Your task to perform on an android device: Open Chrome and go to the settings page Image 0: 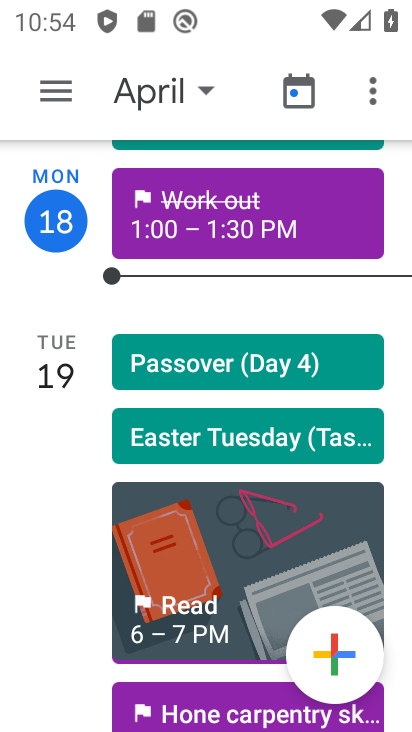
Step 0: press home button
Your task to perform on an android device: Open Chrome and go to the settings page Image 1: 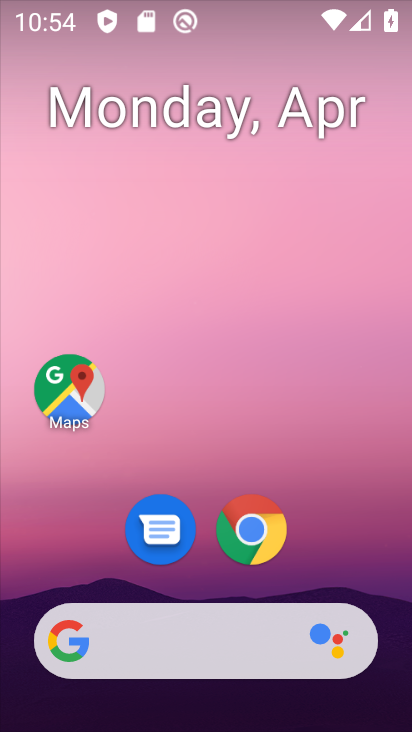
Step 1: drag from (362, 591) to (167, 24)
Your task to perform on an android device: Open Chrome and go to the settings page Image 2: 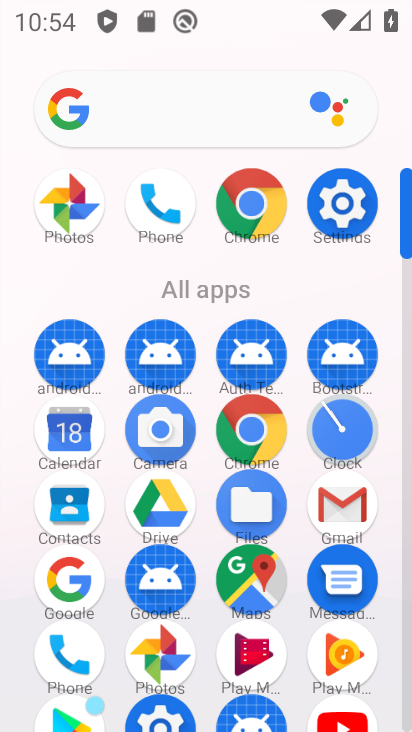
Step 2: click (254, 230)
Your task to perform on an android device: Open Chrome and go to the settings page Image 3: 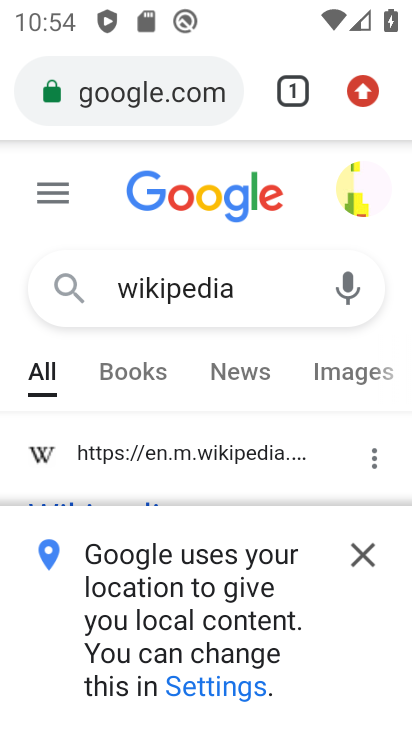
Step 3: press back button
Your task to perform on an android device: Open Chrome and go to the settings page Image 4: 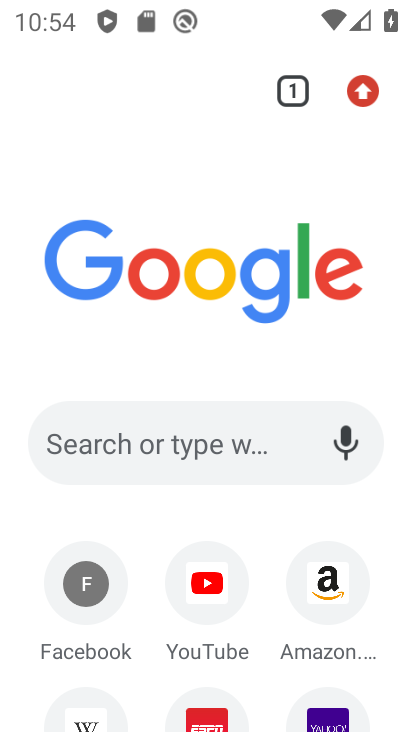
Step 4: click (358, 88)
Your task to perform on an android device: Open Chrome and go to the settings page Image 5: 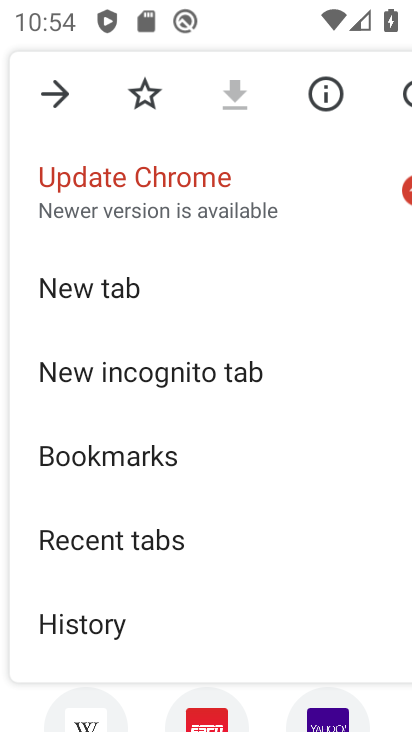
Step 5: drag from (224, 560) to (230, 124)
Your task to perform on an android device: Open Chrome and go to the settings page Image 6: 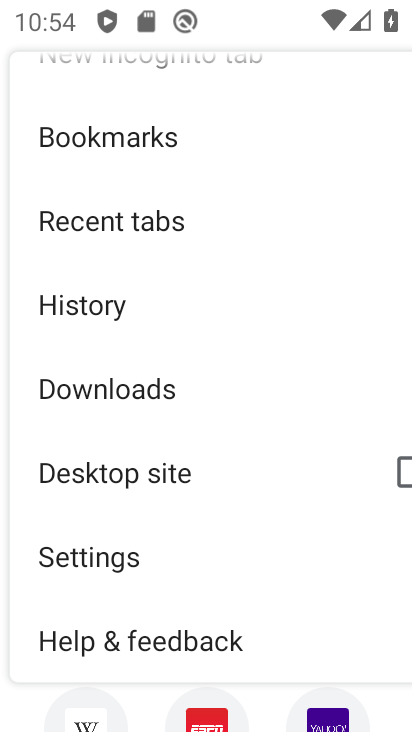
Step 6: click (184, 542)
Your task to perform on an android device: Open Chrome and go to the settings page Image 7: 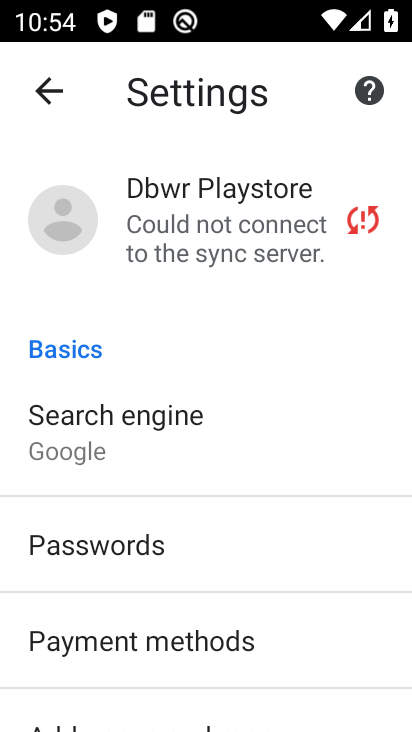
Step 7: task complete